Your task to perform on an android device: Open the stopwatch Image 0: 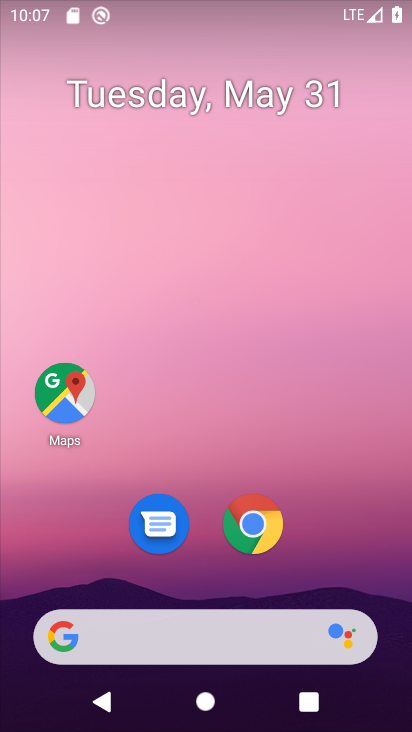
Step 0: drag from (305, 547) to (308, 31)
Your task to perform on an android device: Open the stopwatch Image 1: 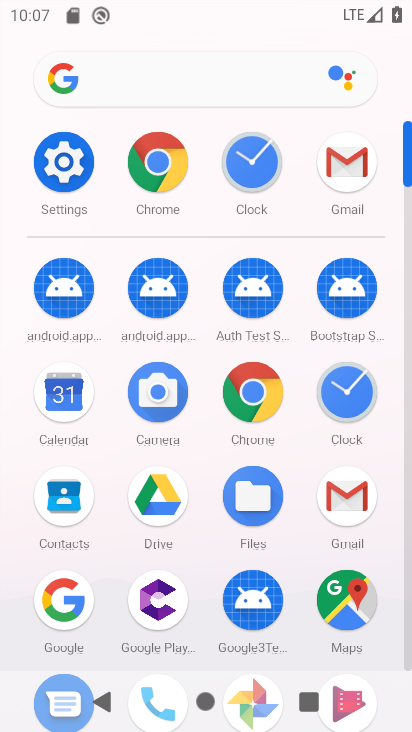
Step 1: click (265, 168)
Your task to perform on an android device: Open the stopwatch Image 2: 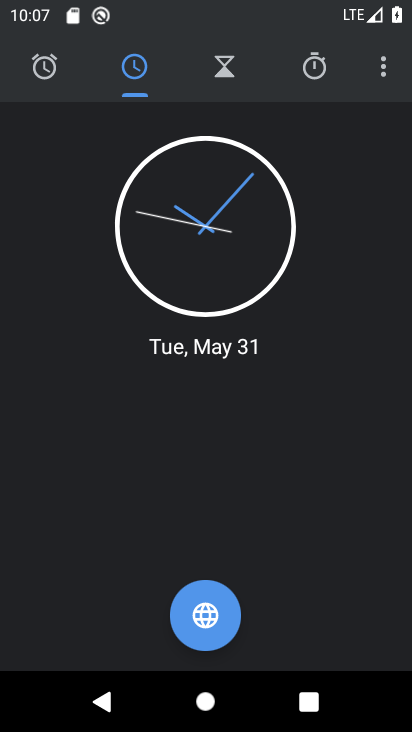
Step 2: click (309, 71)
Your task to perform on an android device: Open the stopwatch Image 3: 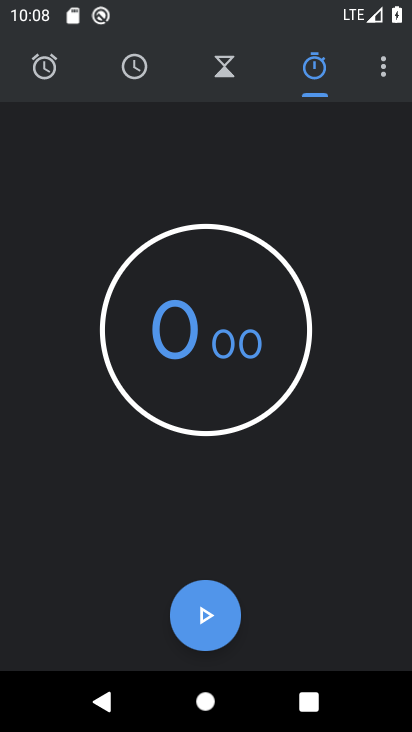
Step 3: task complete